Your task to perform on an android device: Open Google Chrome and click the shortcut for Amazon.com Image 0: 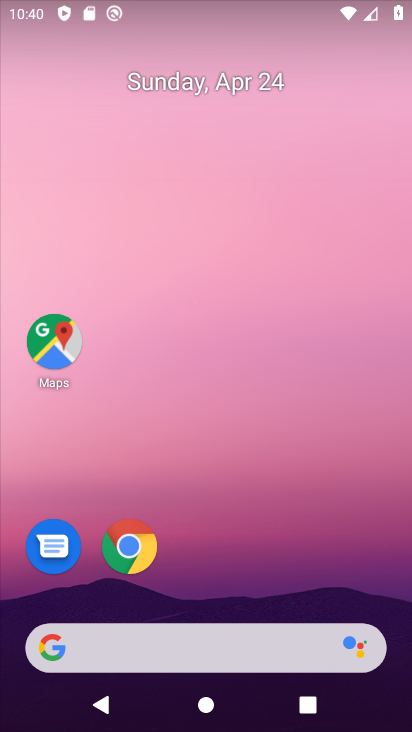
Step 0: click (126, 552)
Your task to perform on an android device: Open Google Chrome and click the shortcut for Amazon.com Image 1: 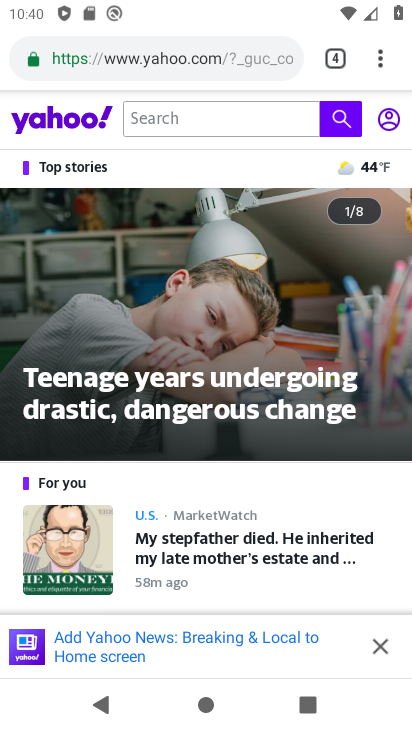
Step 1: click (339, 61)
Your task to perform on an android device: Open Google Chrome and click the shortcut for Amazon.com Image 2: 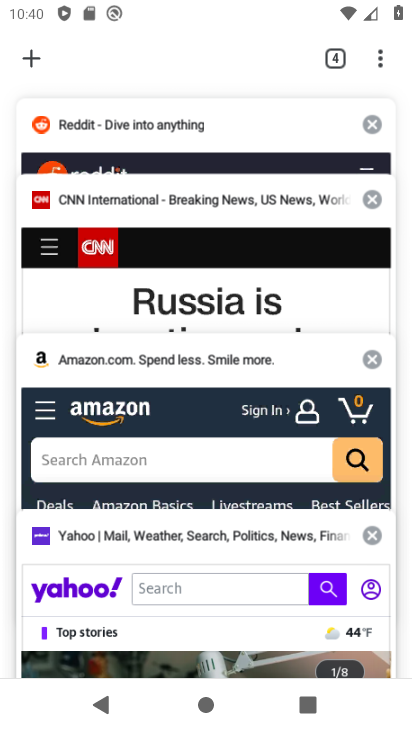
Step 2: click (138, 363)
Your task to perform on an android device: Open Google Chrome and click the shortcut for Amazon.com Image 3: 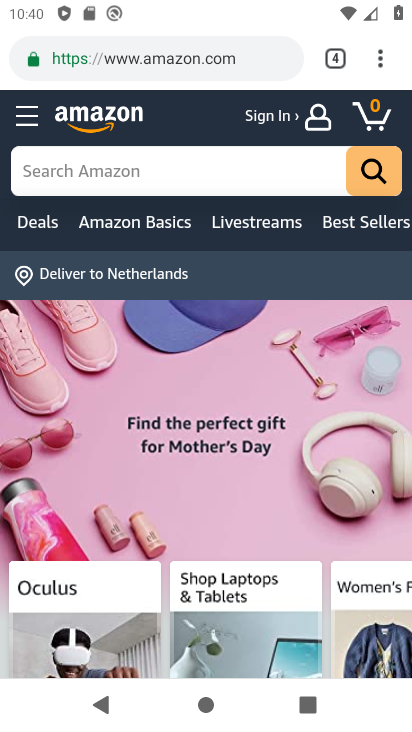
Step 3: task complete